Your task to perform on an android device: Search for Italian restaurants on Maps Image 0: 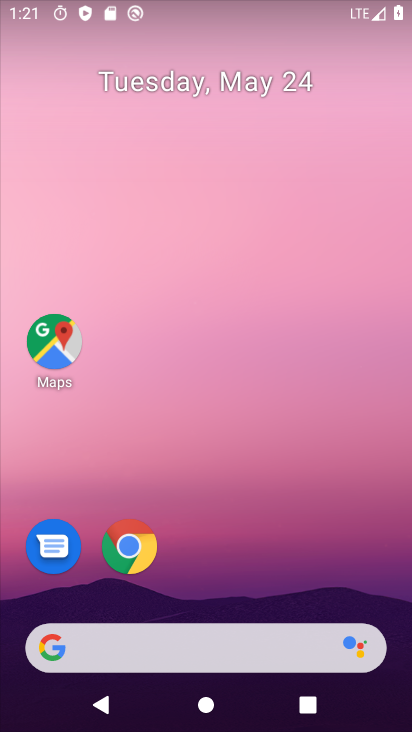
Step 0: drag from (199, 571) to (149, 0)
Your task to perform on an android device: Search for Italian restaurants on Maps Image 1: 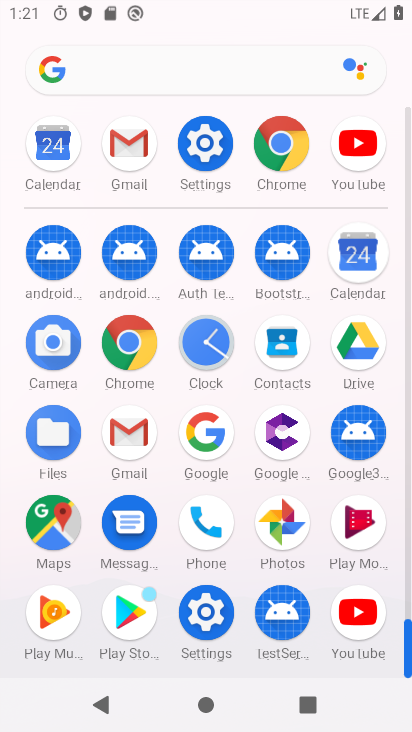
Step 1: click (60, 509)
Your task to perform on an android device: Search for Italian restaurants on Maps Image 2: 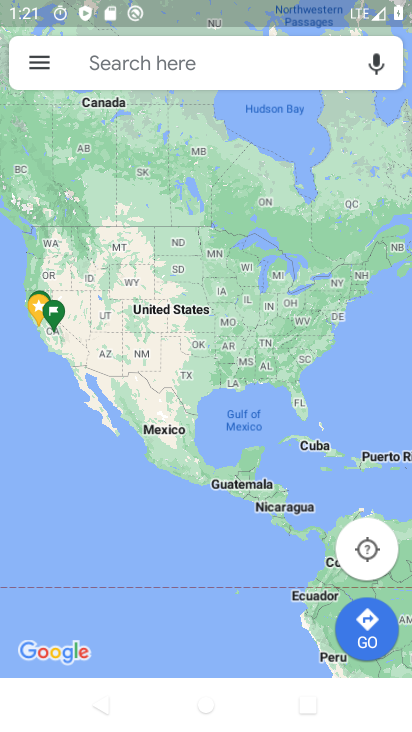
Step 2: press home button
Your task to perform on an android device: Search for Italian restaurants on Maps Image 3: 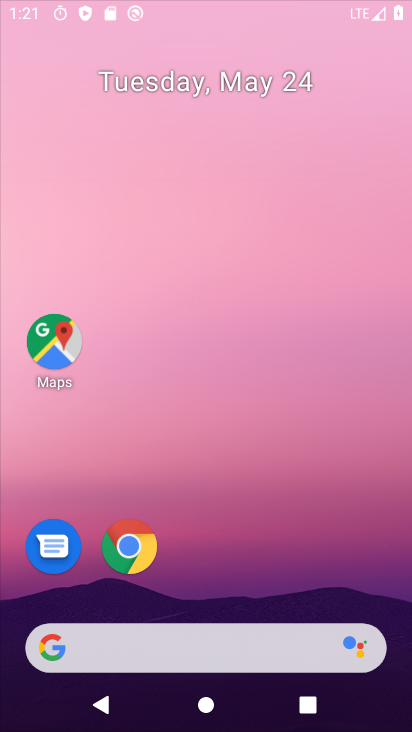
Step 3: drag from (229, 616) to (287, 121)
Your task to perform on an android device: Search for Italian restaurants on Maps Image 4: 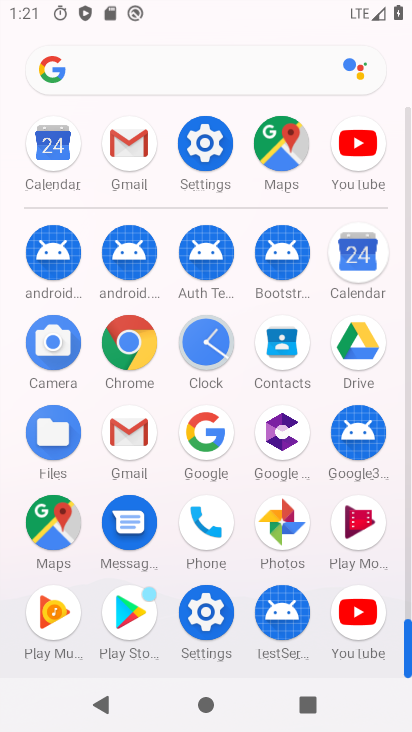
Step 4: click (55, 528)
Your task to perform on an android device: Search for Italian restaurants on Maps Image 5: 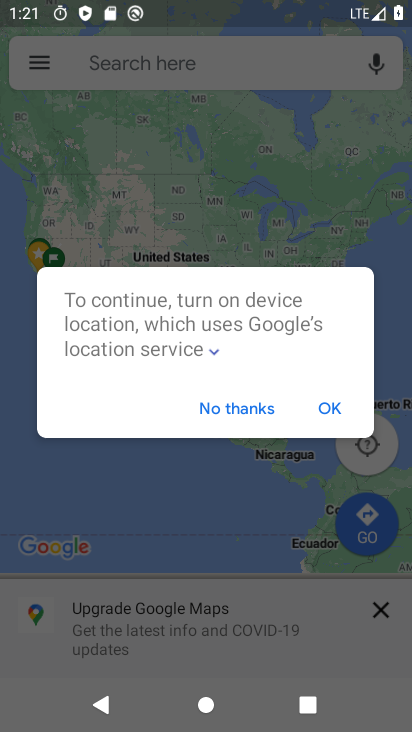
Step 5: click (234, 407)
Your task to perform on an android device: Search for Italian restaurants on Maps Image 6: 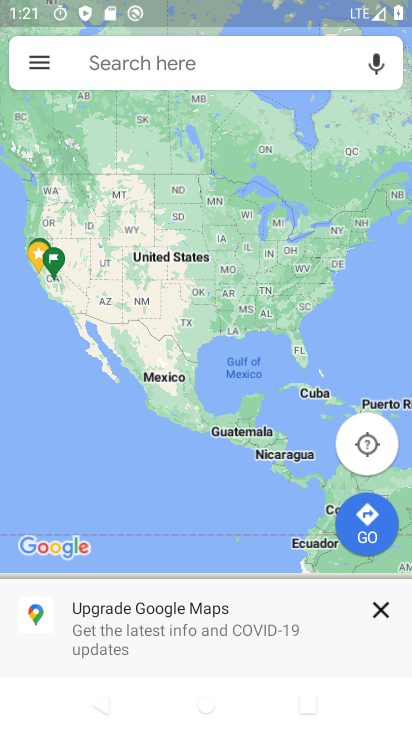
Step 6: drag from (188, 614) to (271, 131)
Your task to perform on an android device: Search for Italian restaurants on Maps Image 7: 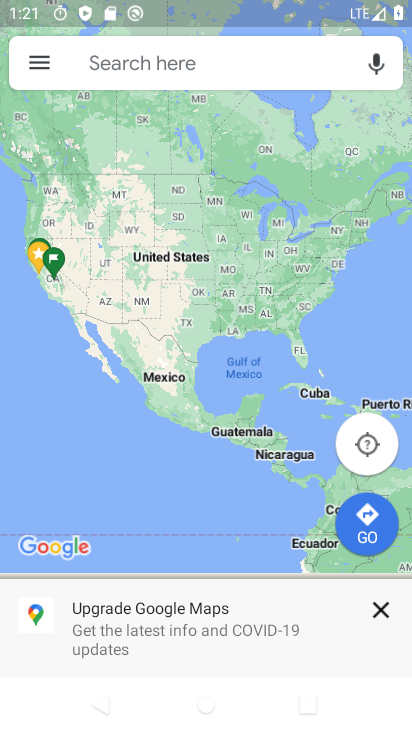
Step 7: drag from (227, 613) to (312, 131)
Your task to perform on an android device: Search for Italian restaurants on Maps Image 8: 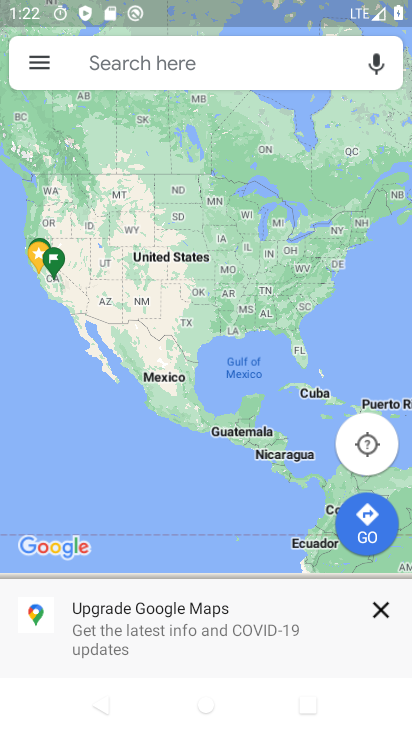
Step 8: click (168, 59)
Your task to perform on an android device: Search for Italian restaurants on Maps Image 9: 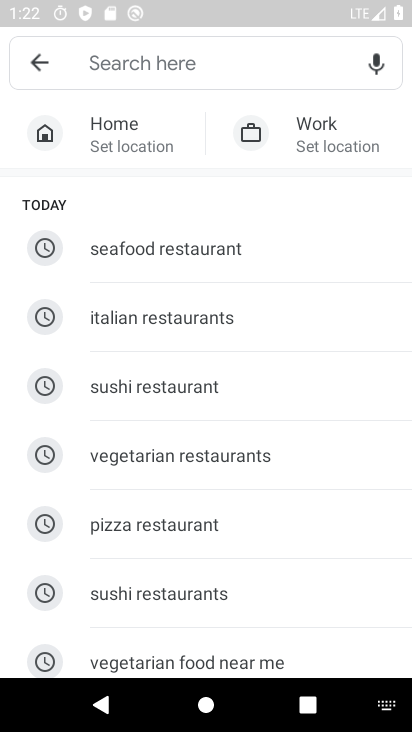
Step 9: click (140, 314)
Your task to perform on an android device: Search for Italian restaurants on Maps Image 10: 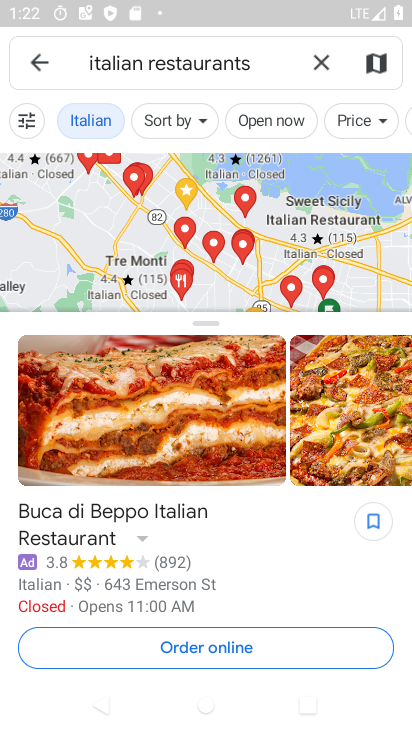
Step 10: task complete